Your task to perform on an android device: Open the calendar and show me this week's events? Image 0: 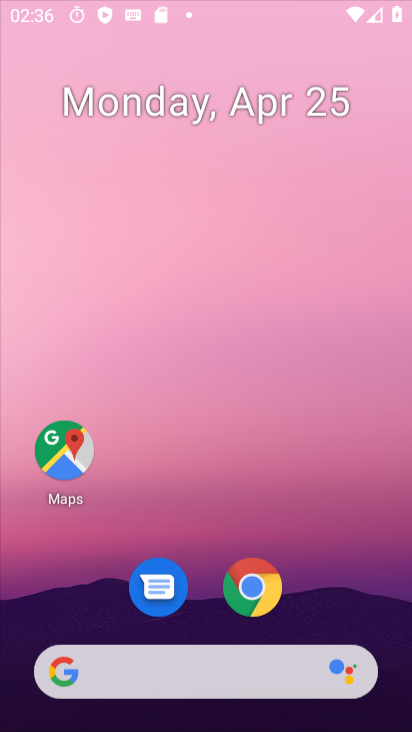
Step 0: click (303, 142)
Your task to perform on an android device: Open the calendar and show me this week's events? Image 1: 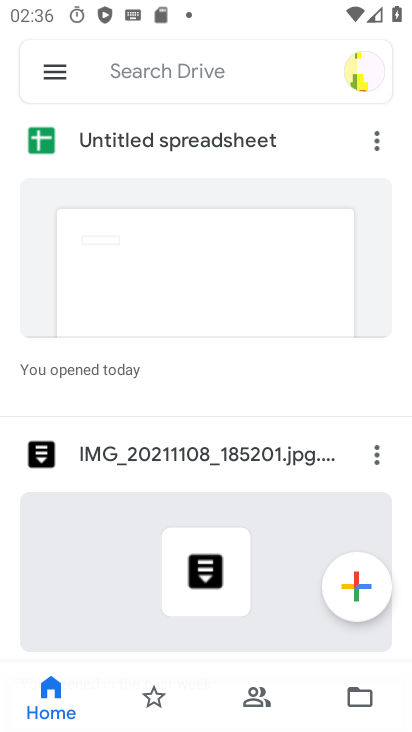
Step 1: press home button
Your task to perform on an android device: Open the calendar and show me this week's events? Image 2: 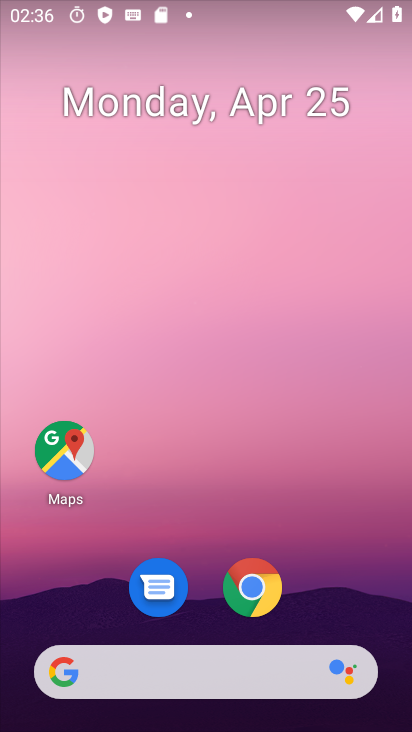
Step 2: drag from (358, 629) to (401, 166)
Your task to perform on an android device: Open the calendar and show me this week's events? Image 3: 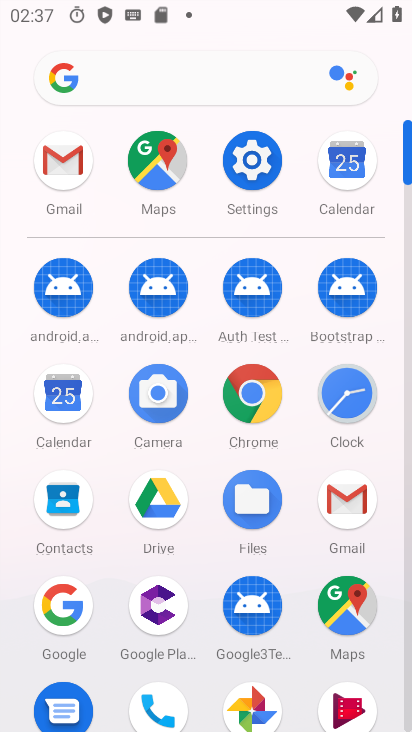
Step 3: drag from (195, 576) to (185, 468)
Your task to perform on an android device: Open the calendar and show me this week's events? Image 4: 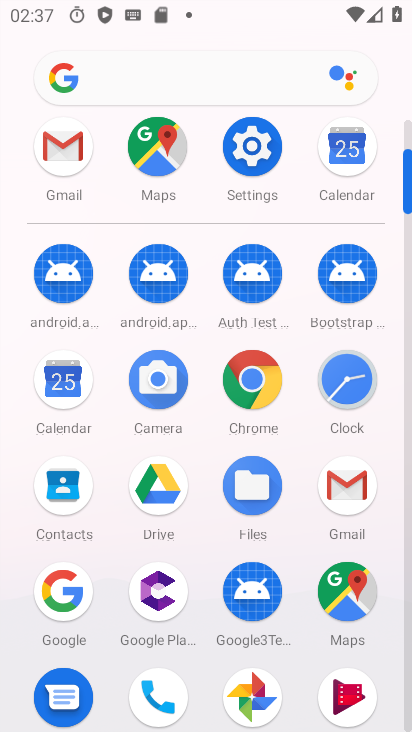
Step 4: click (62, 384)
Your task to perform on an android device: Open the calendar and show me this week's events? Image 5: 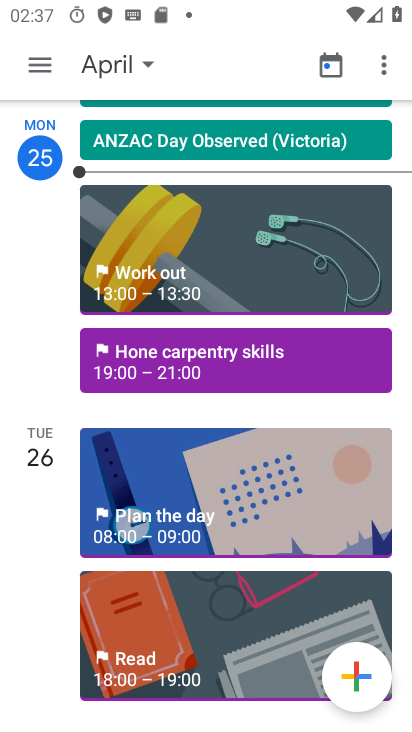
Step 5: click (130, 57)
Your task to perform on an android device: Open the calendar and show me this week's events? Image 6: 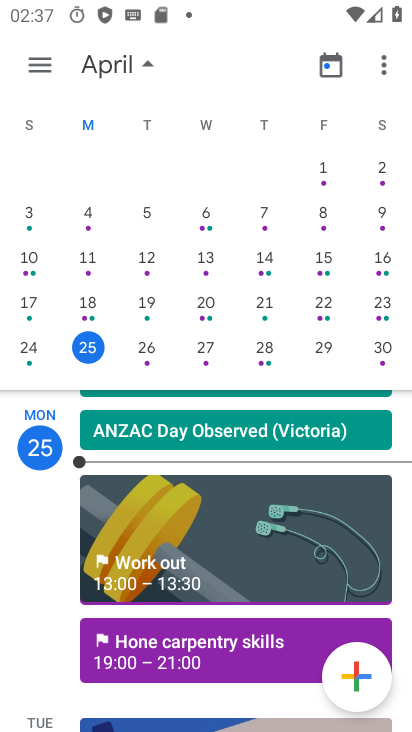
Step 6: task complete